Your task to perform on an android device: Open CNN.com Image 0: 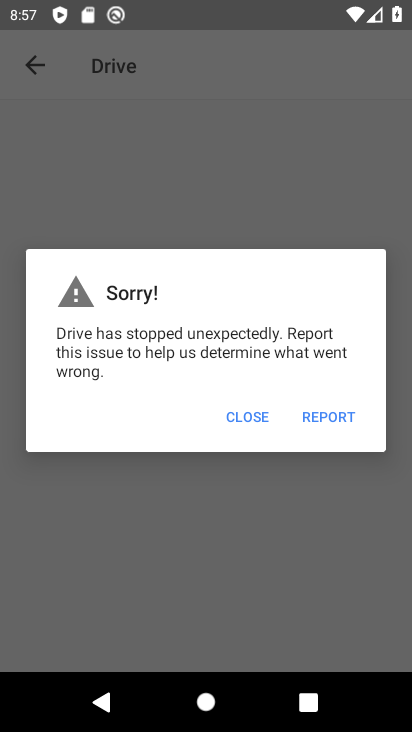
Step 0: press home button
Your task to perform on an android device: Open CNN.com Image 1: 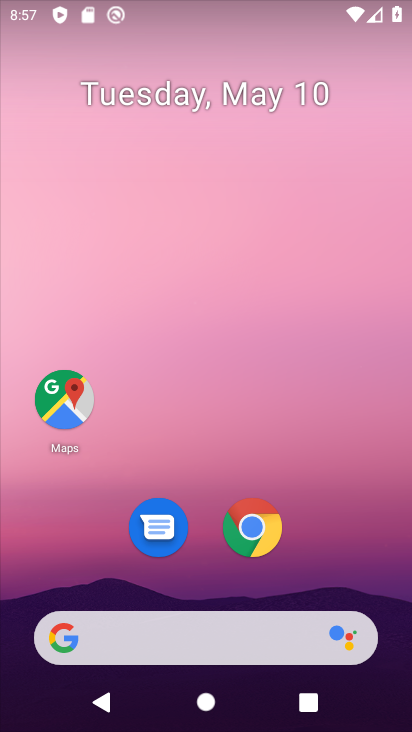
Step 1: click (252, 529)
Your task to perform on an android device: Open CNN.com Image 2: 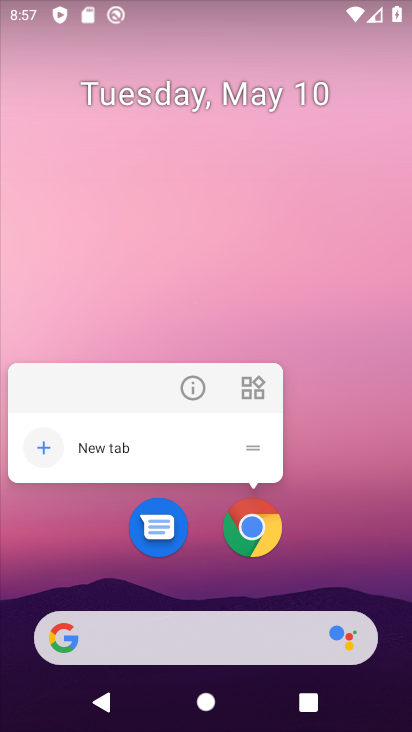
Step 2: click (255, 540)
Your task to perform on an android device: Open CNN.com Image 3: 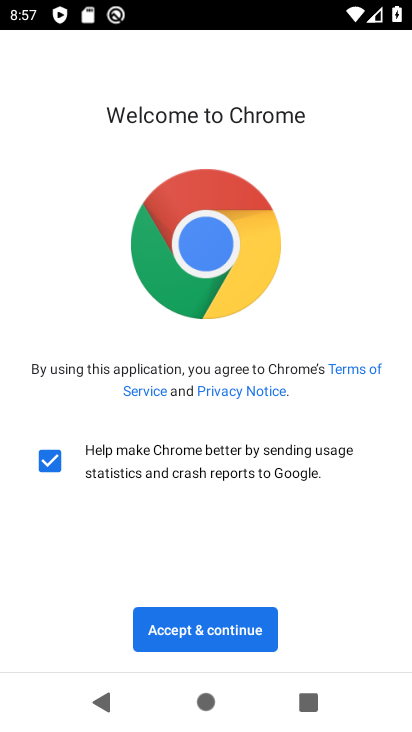
Step 3: click (184, 639)
Your task to perform on an android device: Open CNN.com Image 4: 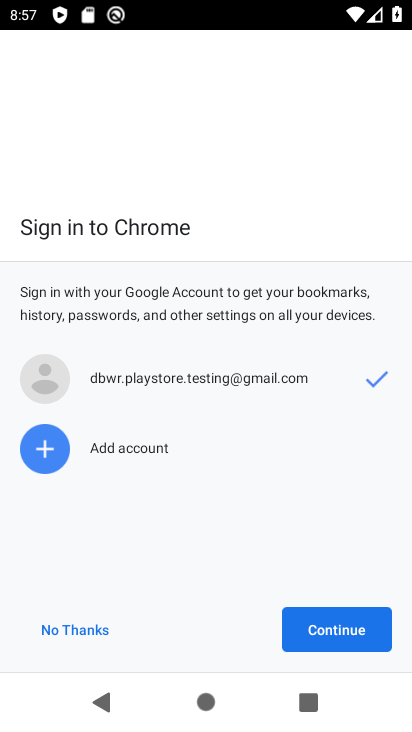
Step 4: click (292, 626)
Your task to perform on an android device: Open CNN.com Image 5: 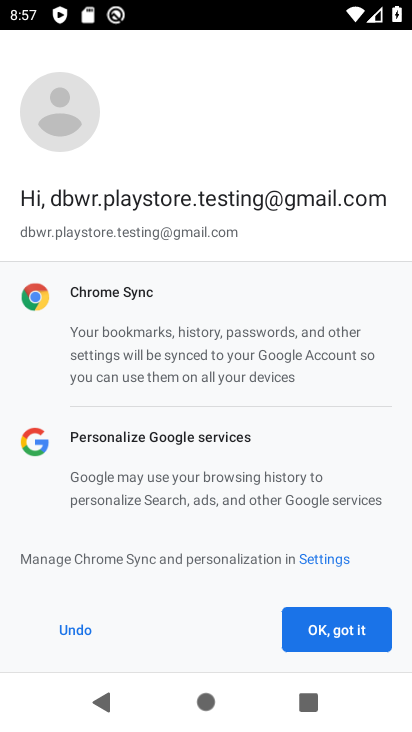
Step 5: click (331, 616)
Your task to perform on an android device: Open CNN.com Image 6: 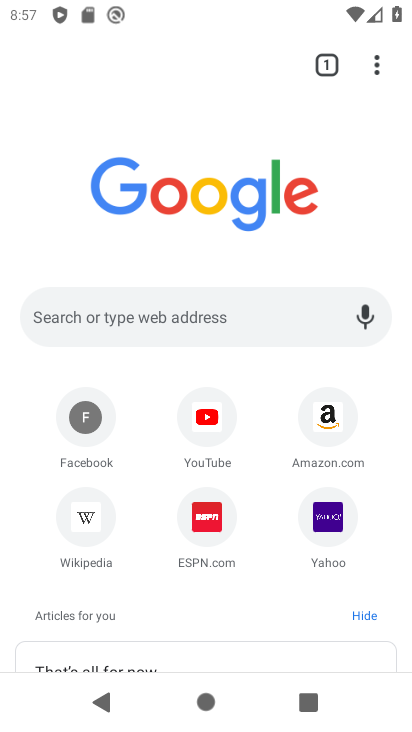
Step 6: click (154, 315)
Your task to perform on an android device: Open CNN.com Image 7: 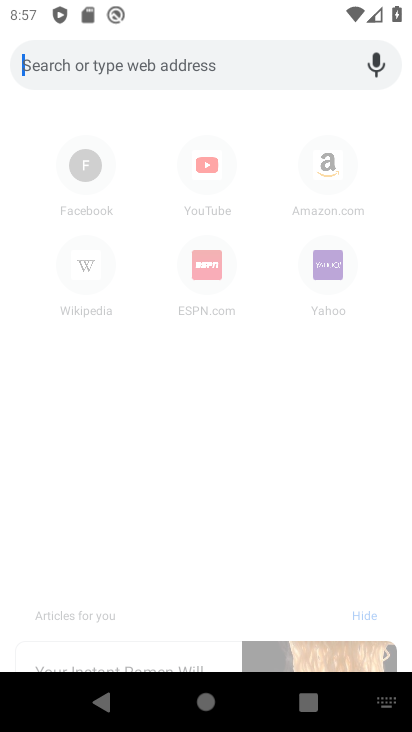
Step 7: type "cnn.com"
Your task to perform on an android device: Open CNN.com Image 8: 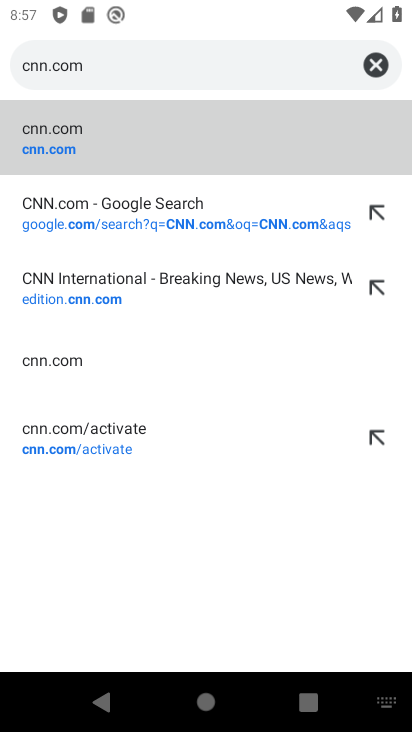
Step 8: click (154, 213)
Your task to perform on an android device: Open CNN.com Image 9: 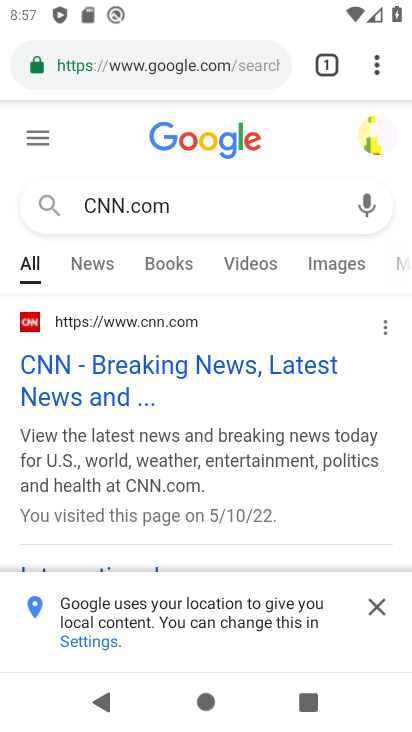
Step 9: click (146, 350)
Your task to perform on an android device: Open CNN.com Image 10: 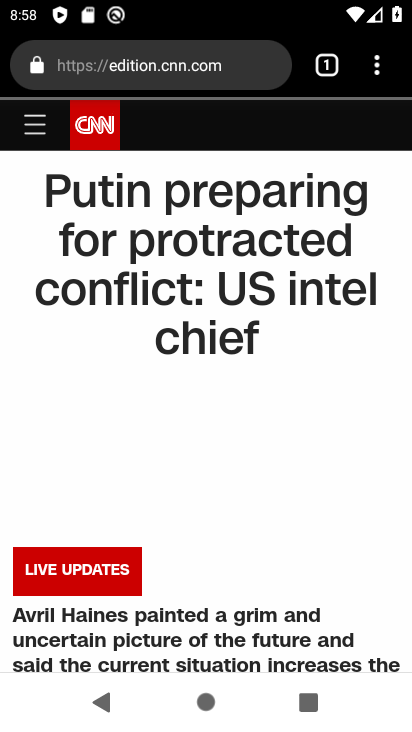
Step 10: task complete